Your task to perform on an android device: What is the news today? Image 0: 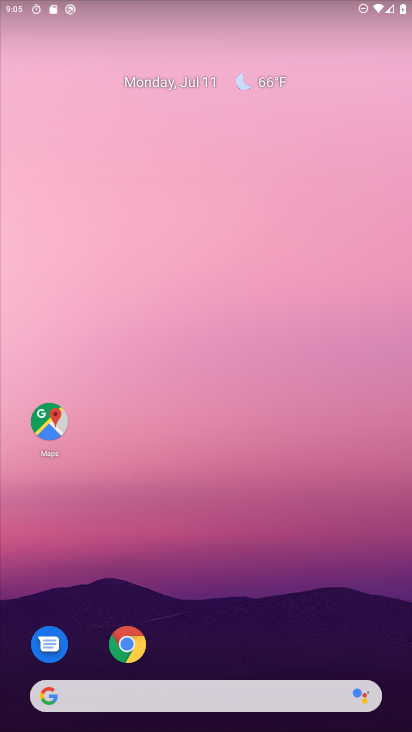
Step 0: drag from (339, 639) to (285, 195)
Your task to perform on an android device: What is the news today? Image 1: 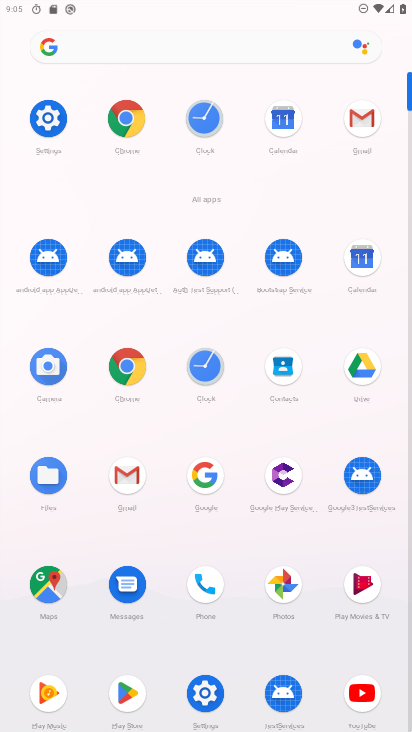
Step 1: click (128, 365)
Your task to perform on an android device: What is the news today? Image 2: 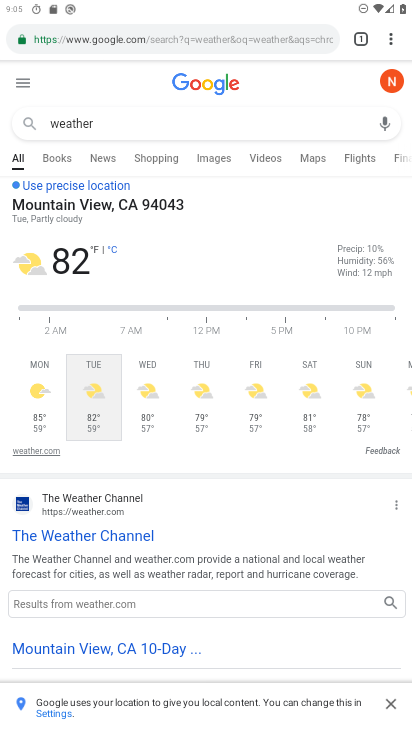
Step 2: click (232, 41)
Your task to perform on an android device: What is the news today? Image 3: 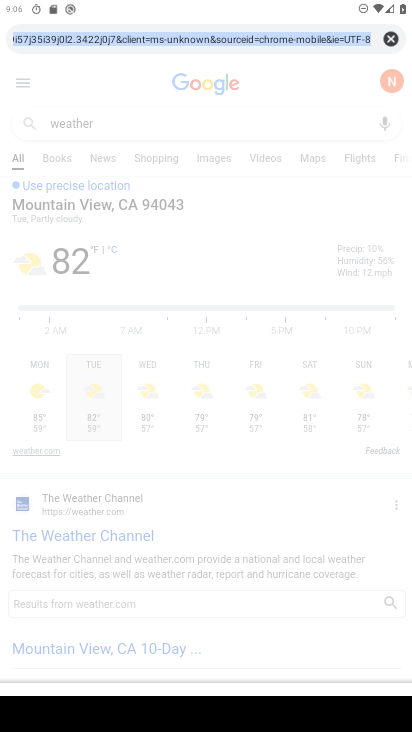
Step 3: type "news"
Your task to perform on an android device: What is the news today? Image 4: 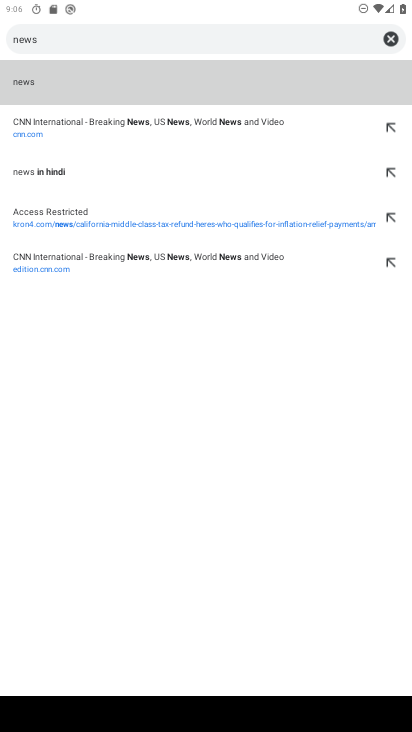
Step 4: click (28, 78)
Your task to perform on an android device: What is the news today? Image 5: 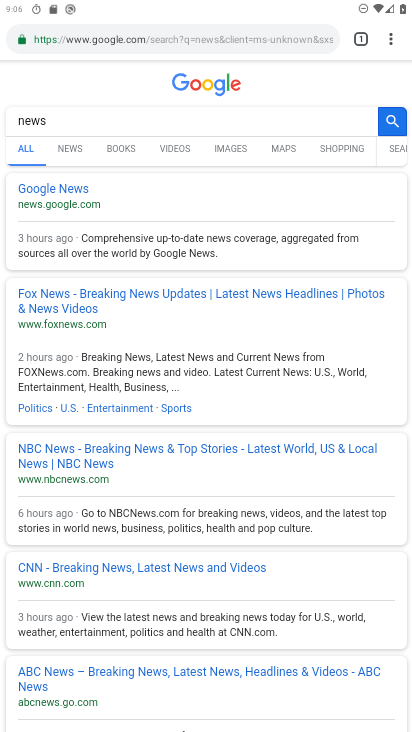
Step 5: click (56, 182)
Your task to perform on an android device: What is the news today? Image 6: 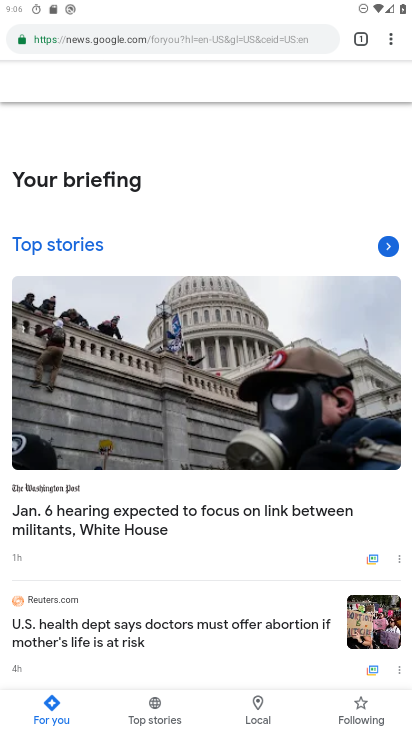
Step 6: task complete